Your task to perform on an android device: turn off sleep mode Image 0: 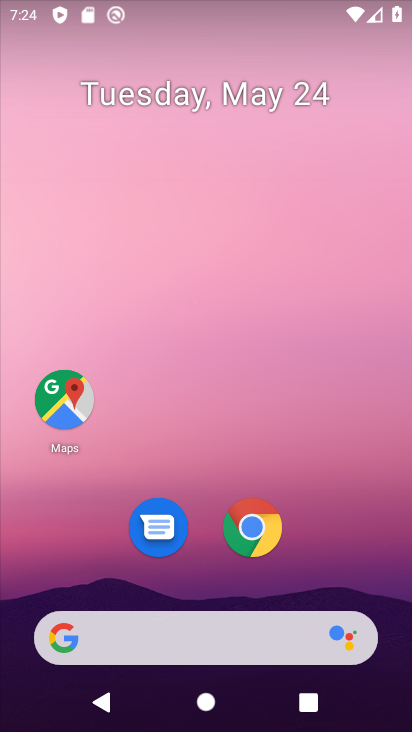
Step 0: drag from (294, 586) to (352, 277)
Your task to perform on an android device: turn off sleep mode Image 1: 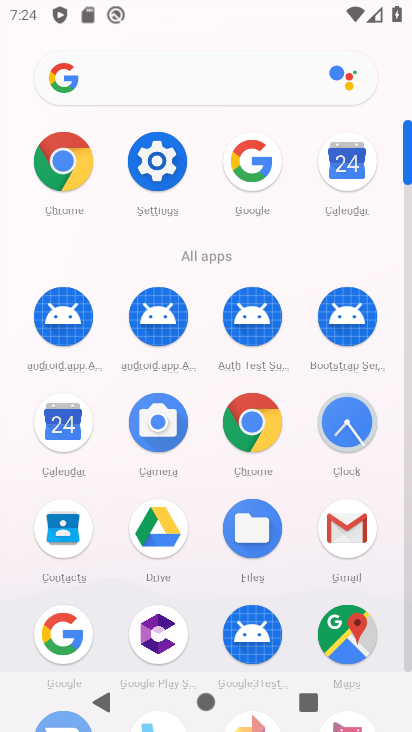
Step 1: click (145, 159)
Your task to perform on an android device: turn off sleep mode Image 2: 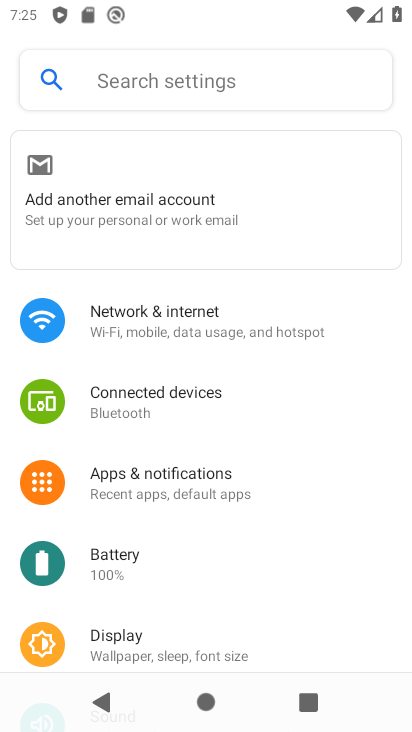
Step 2: task complete